Your task to perform on an android device: Open calendar and show me the second week of next month Image 0: 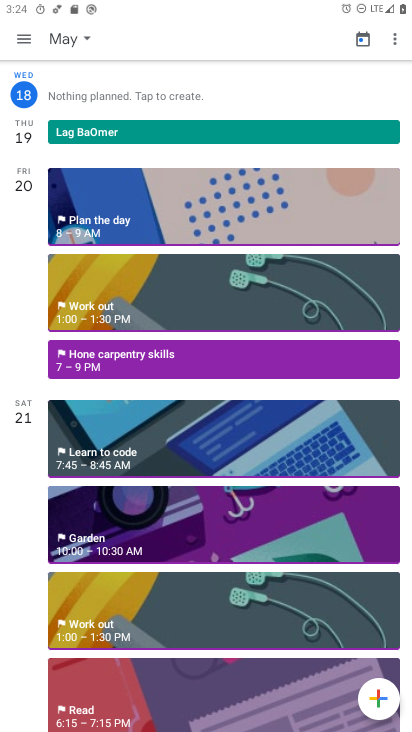
Step 0: press home button
Your task to perform on an android device: Open calendar and show me the second week of next month Image 1: 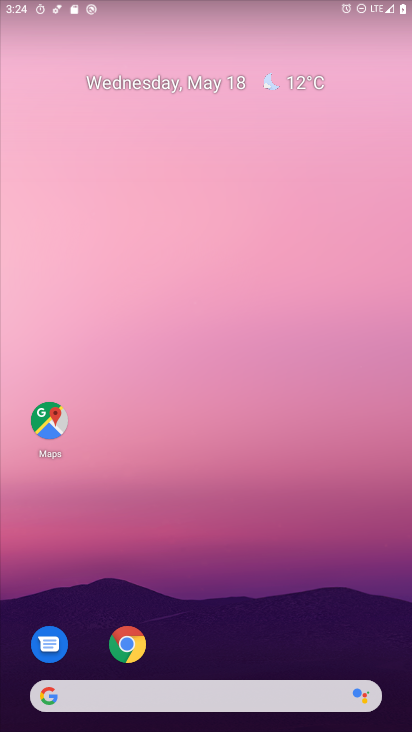
Step 1: drag from (404, 524) to (381, 222)
Your task to perform on an android device: Open calendar and show me the second week of next month Image 2: 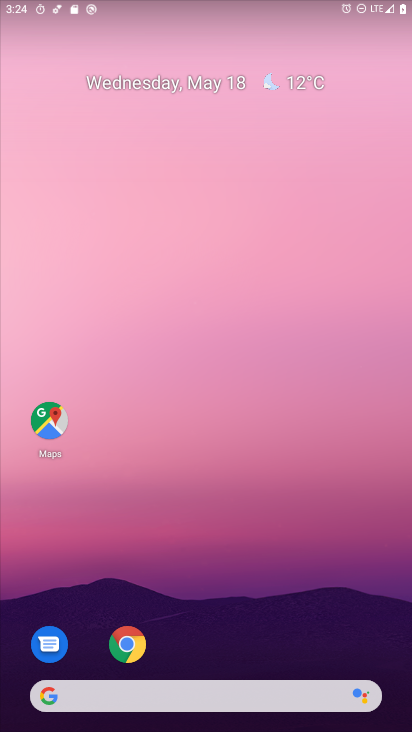
Step 2: drag from (399, 592) to (402, 212)
Your task to perform on an android device: Open calendar and show me the second week of next month Image 3: 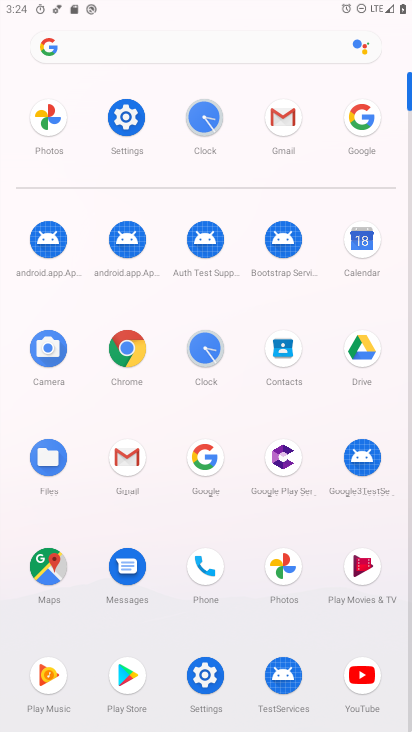
Step 3: click (353, 240)
Your task to perform on an android device: Open calendar and show me the second week of next month Image 4: 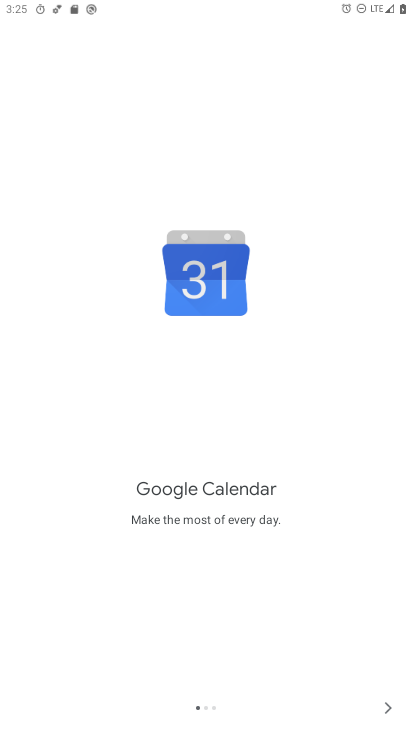
Step 4: click (377, 698)
Your task to perform on an android device: Open calendar and show me the second week of next month Image 5: 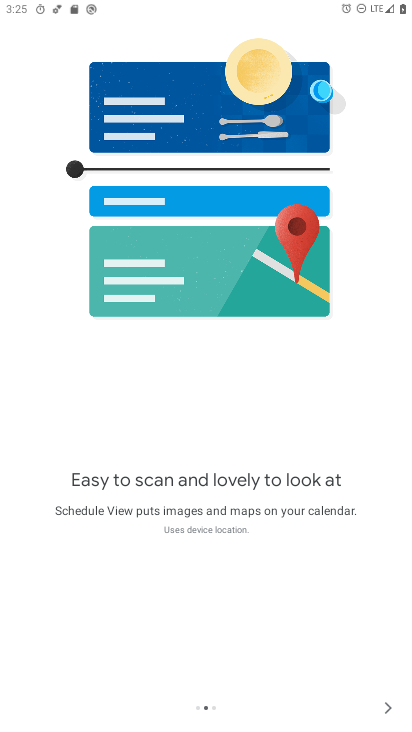
Step 5: click (377, 699)
Your task to perform on an android device: Open calendar and show me the second week of next month Image 6: 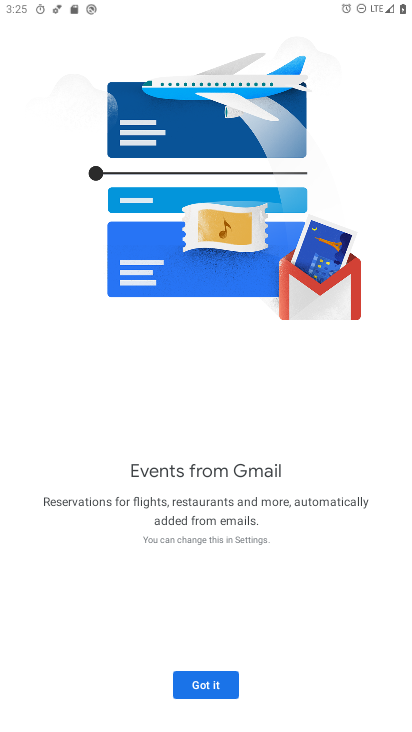
Step 6: click (377, 699)
Your task to perform on an android device: Open calendar and show me the second week of next month Image 7: 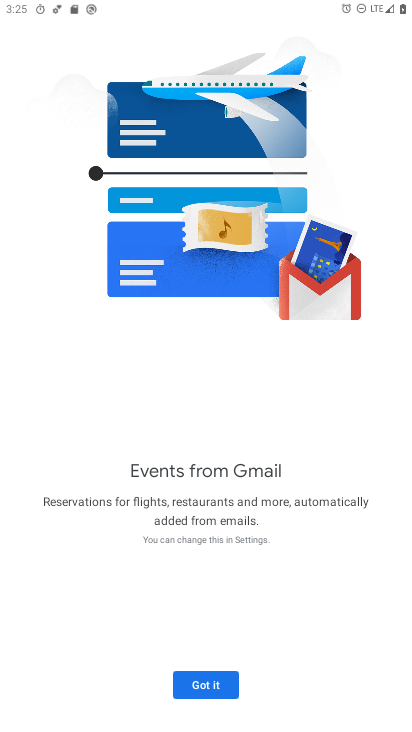
Step 7: click (222, 683)
Your task to perform on an android device: Open calendar and show me the second week of next month Image 8: 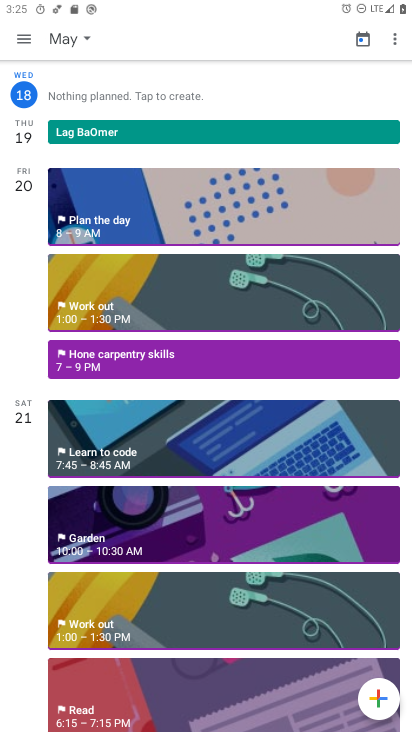
Step 8: click (82, 37)
Your task to perform on an android device: Open calendar and show me the second week of next month Image 9: 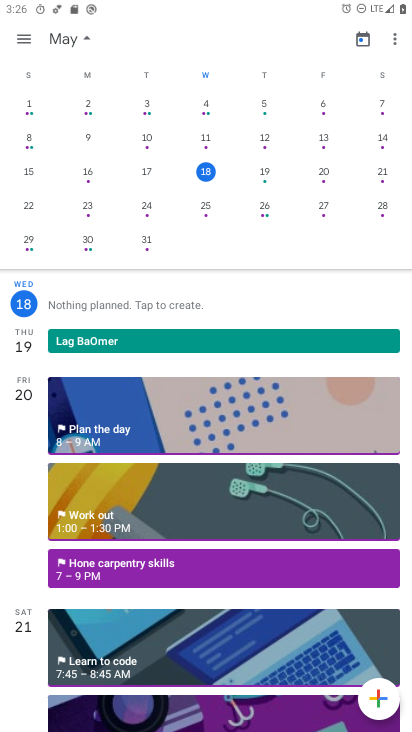
Step 9: drag from (253, 115) to (5, 91)
Your task to perform on an android device: Open calendar and show me the second week of next month Image 10: 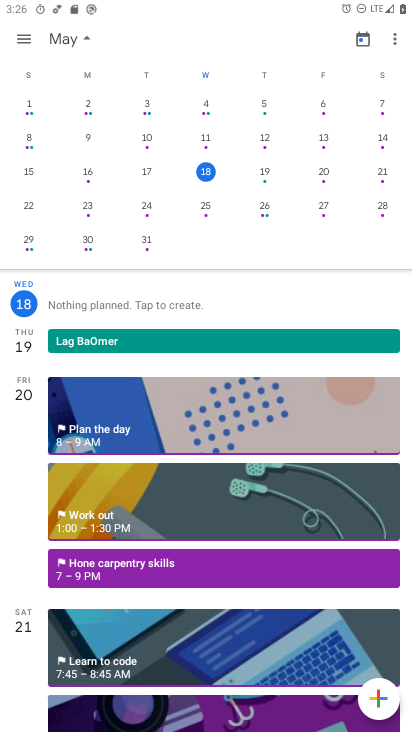
Step 10: drag from (401, 137) to (37, 66)
Your task to perform on an android device: Open calendar and show me the second week of next month Image 11: 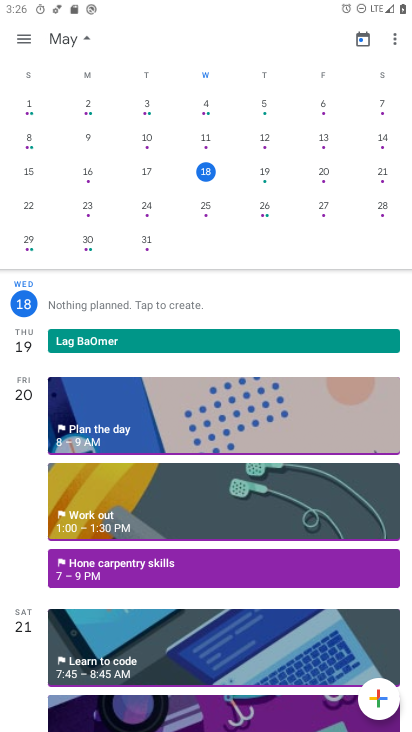
Step 11: drag from (403, 138) to (12, 175)
Your task to perform on an android device: Open calendar and show me the second week of next month Image 12: 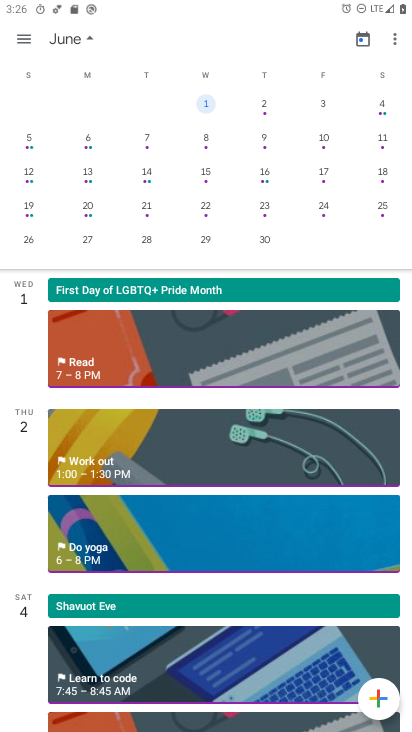
Step 12: click (264, 135)
Your task to perform on an android device: Open calendar and show me the second week of next month Image 13: 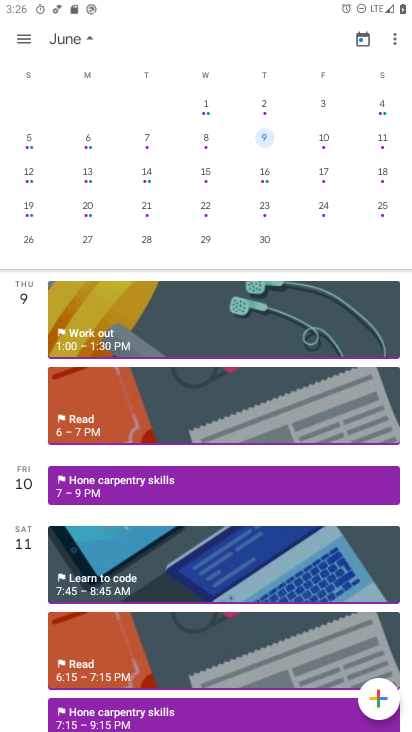
Step 13: click (19, 33)
Your task to perform on an android device: Open calendar and show me the second week of next month Image 14: 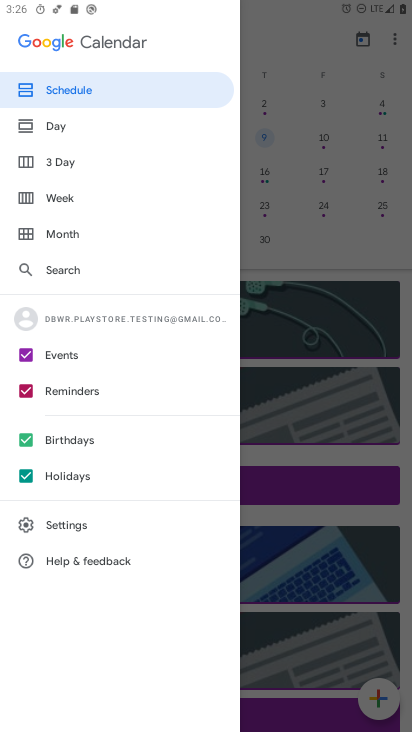
Step 14: click (54, 190)
Your task to perform on an android device: Open calendar and show me the second week of next month Image 15: 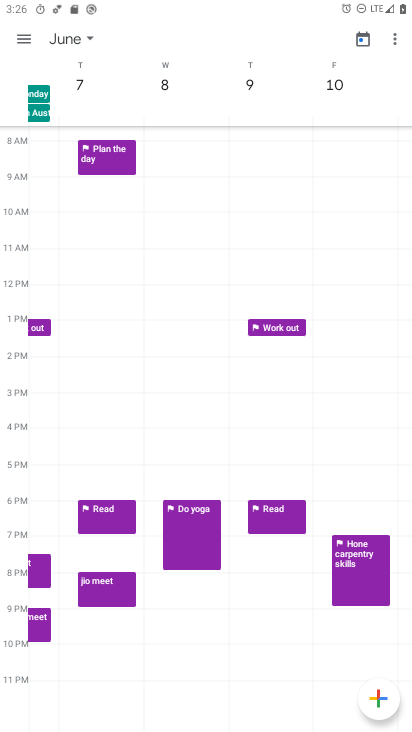
Step 15: task complete